Your task to perform on an android device: turn off location history Image 0: 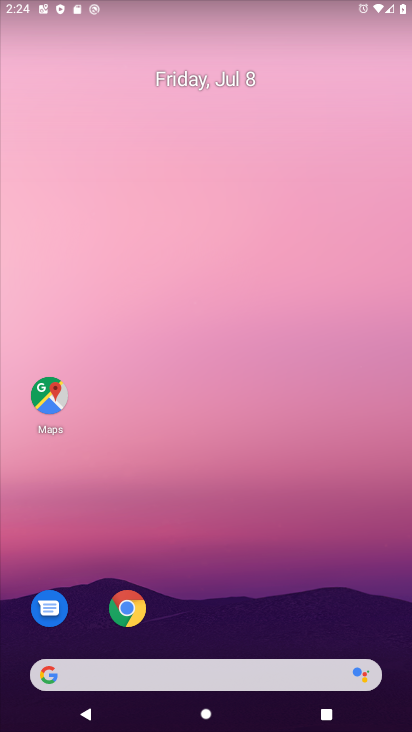
Step 0: drag from (198, 617) to (207, 159)
Your task to perform on an android device: turn off location history Image 1: 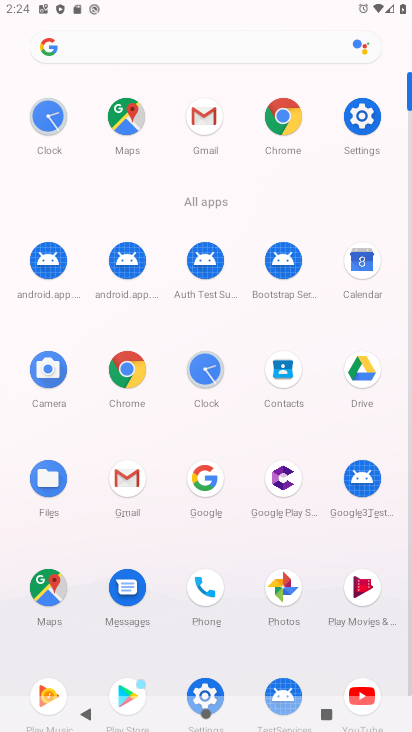
Step 1: click (369, 110)
Your task to perform on an android device: turn off location history Image 2: 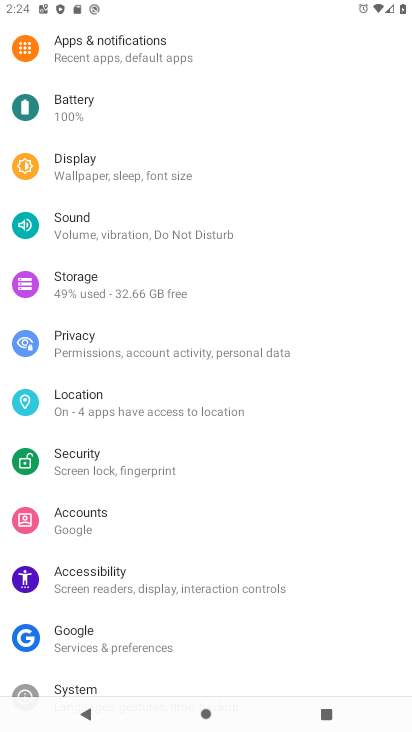
Step 2: click (76, 403)
Your task to perform on an android device: turn off location history Image 3: 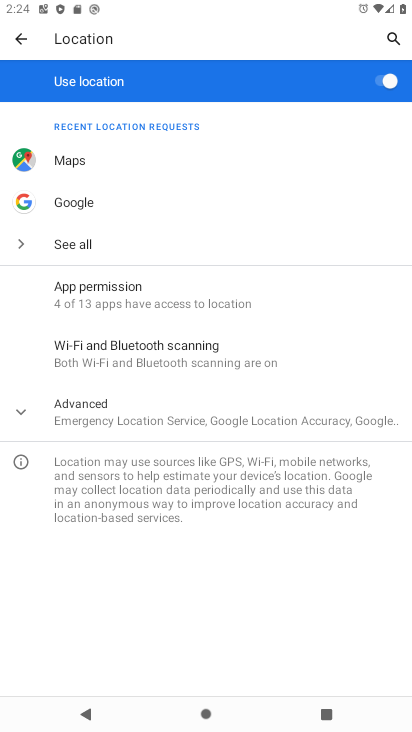
Step 3: click (135, 420)
Your task to perform on an android device: turn off location history Image 4: 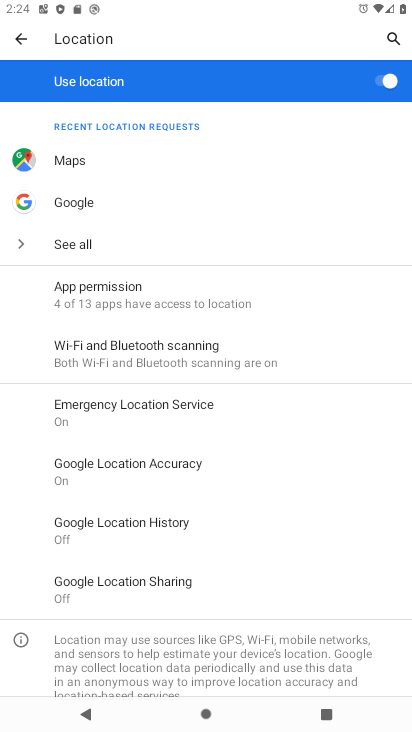
Step 4: click (165, 538)
Your task to perform on an android device: turn off location history Image 5: 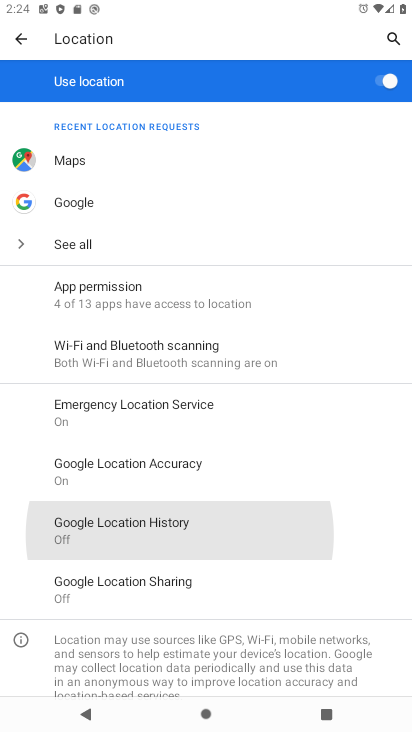
Step 5: task complete